Your task to perform on an android device: Empty the shopping cart on amazon.com. Search for "usb-a" on amazon.com, select the first entry, add it to the cart, then select checkout. Image 0: 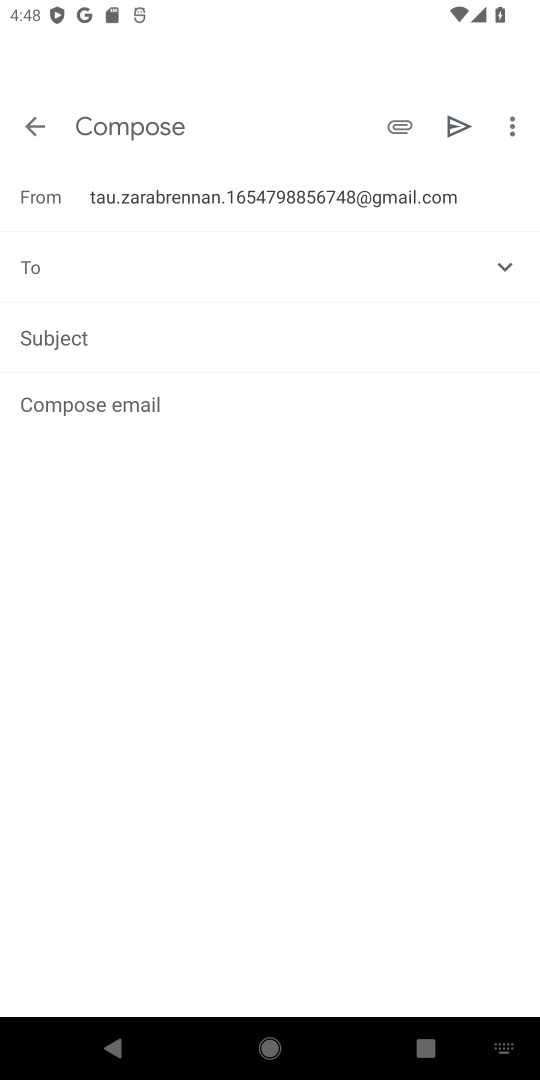
Step 0: press home button
Your task to perform on an android device: Empty the shopping cart on amazon.com. Search for "usb-a" on amazon.com, select the first entry, add it to the cart, then select checkout. Image 1: 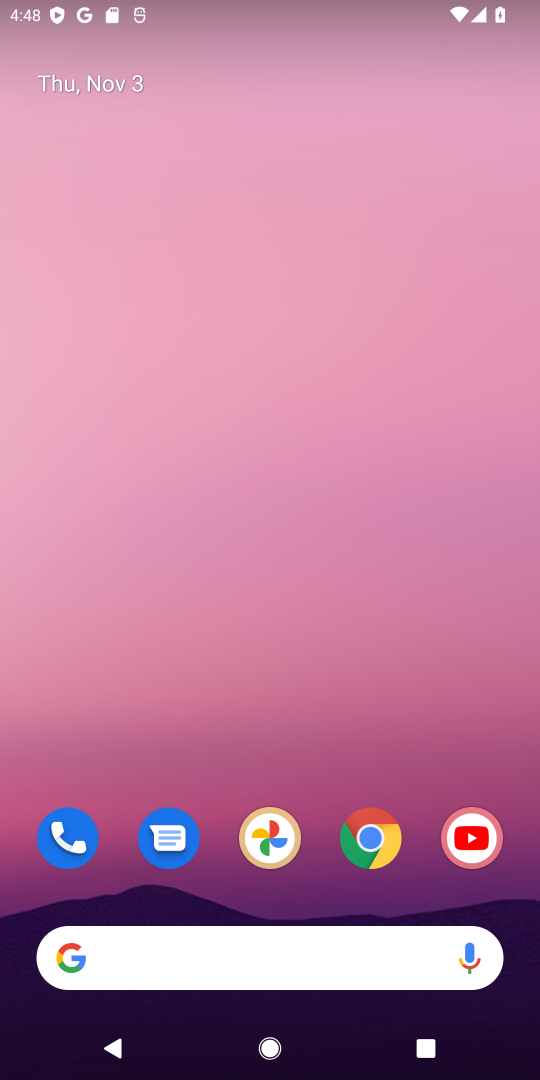
Step 1: click (69, 960)
Your task to perform on an android device: Empty the shopping cart on amazon.com. Search for "usb-a" on amazon.com, select the first entry, add it to the cart, then select checkout. Image 2: 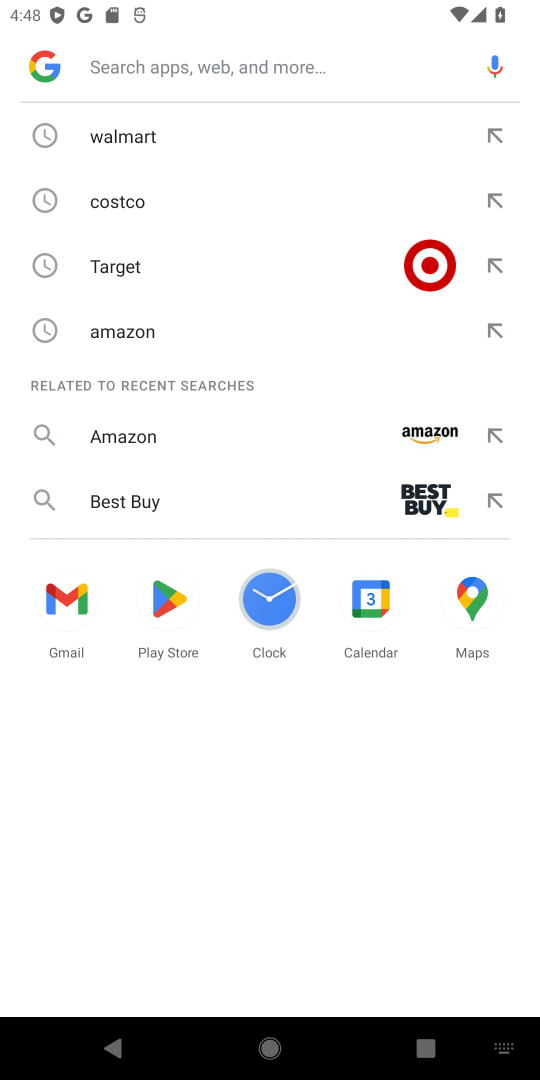
Step 2: click (151, 437)
Your task to perform on an android device: Empty the shopping cart on amazon.com. Search for "usb-a" on amazon.com, select the first entry, add it to the cart, then select checkout. Image 3: 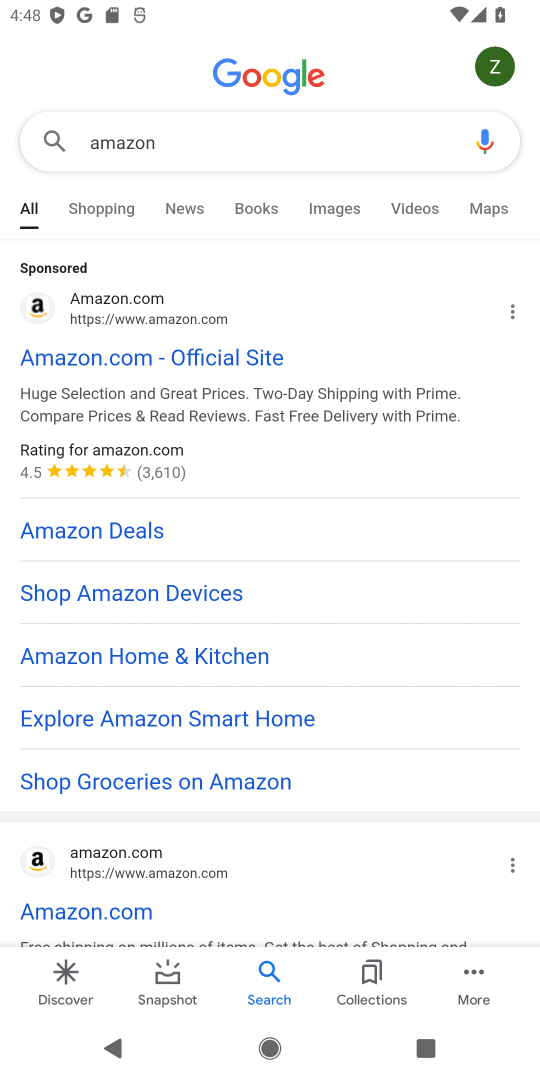
Step 3: click (162, 359)
Your task to perform on an android device: Empty the shopping cart on amazon.com. Search for "usb-a" on amazon.com, select the first entry, add it to the cart, then select checkout. Image 4: 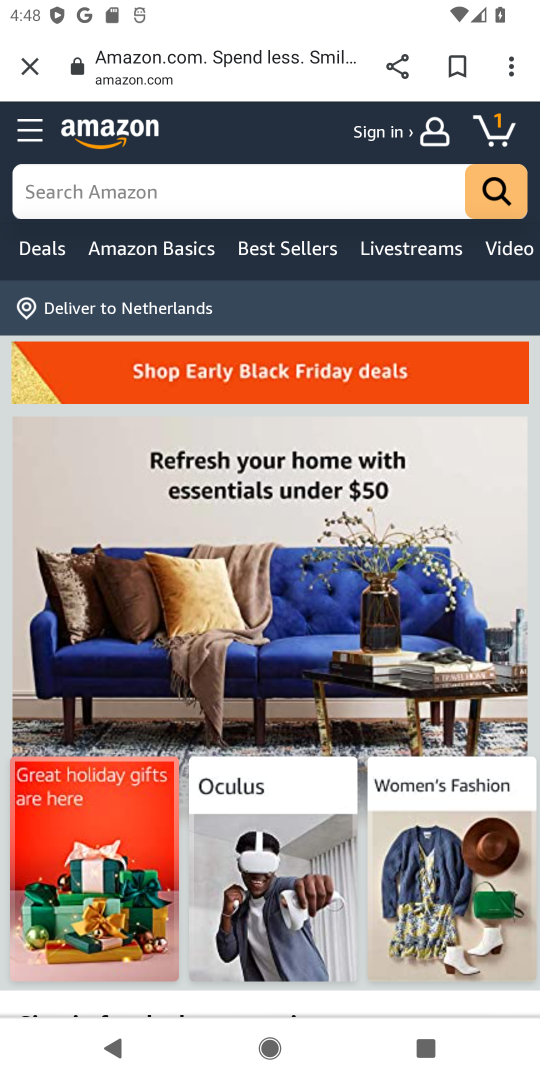
Step 4: click (286, 187)
Your task to perform on an android device: Empty the shopping cart on amazon.com. Search for "usb-a" on amazon.com, select the first entry, add it to the cart, then select checkout. Image 5: 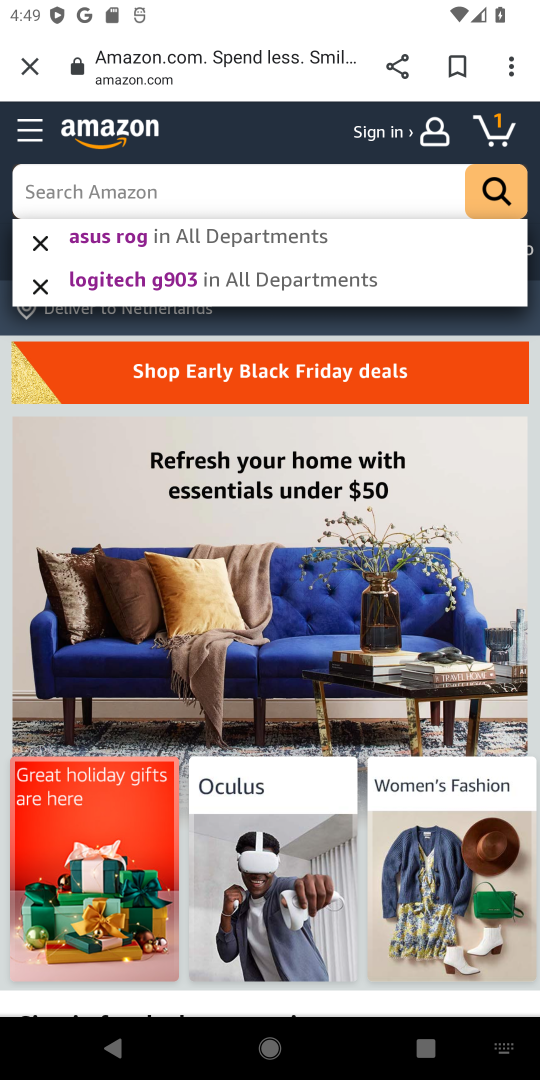
Step 5: type "usb-a"
Your task to perform on an android device: Empty the shopping cart on amazon.com. Search for "usb-a" on amazon.com, select the first entry, add it to the cart, then select checkout. Image 6: 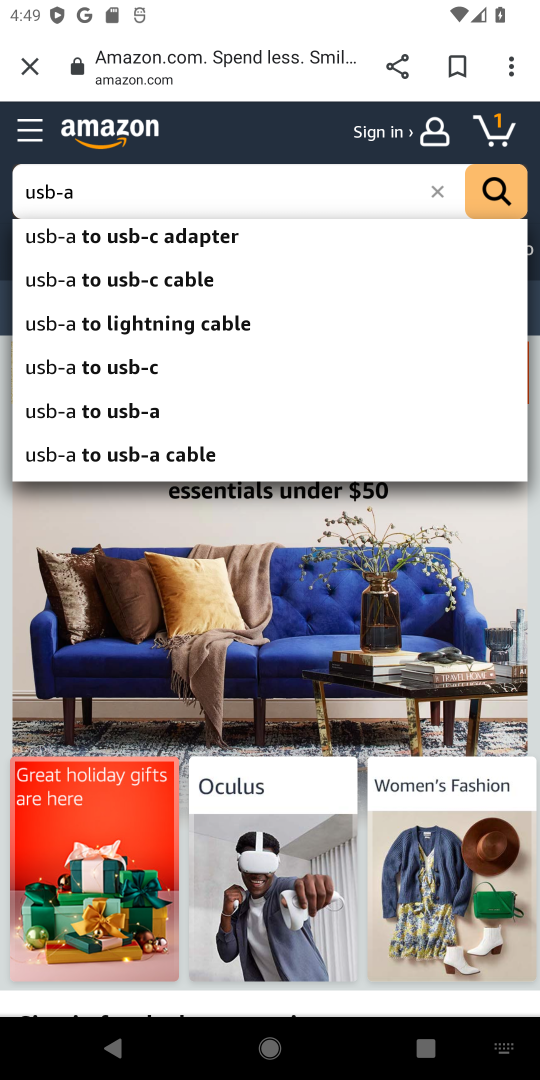
Step 6: click (75, 243)
Your task to perform on an android device: Empty the shopping cart on amazon.com. Search for "usb-a" on amazon.com, select the first entry, add it to the cart, then select checkout. Image 7: 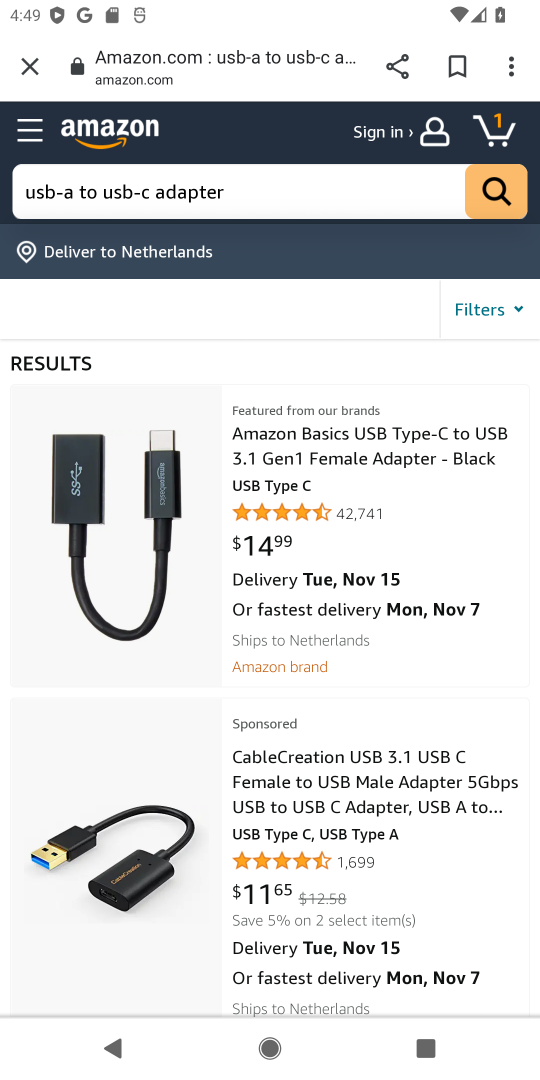
Step 7: click (497, 131)
Your task to perform on an android device: Empty the shopping cart on amazon.com. Search for "usb-a" on amazon.com, select the first entry, add it to the cart, then select checkout. Image 8: 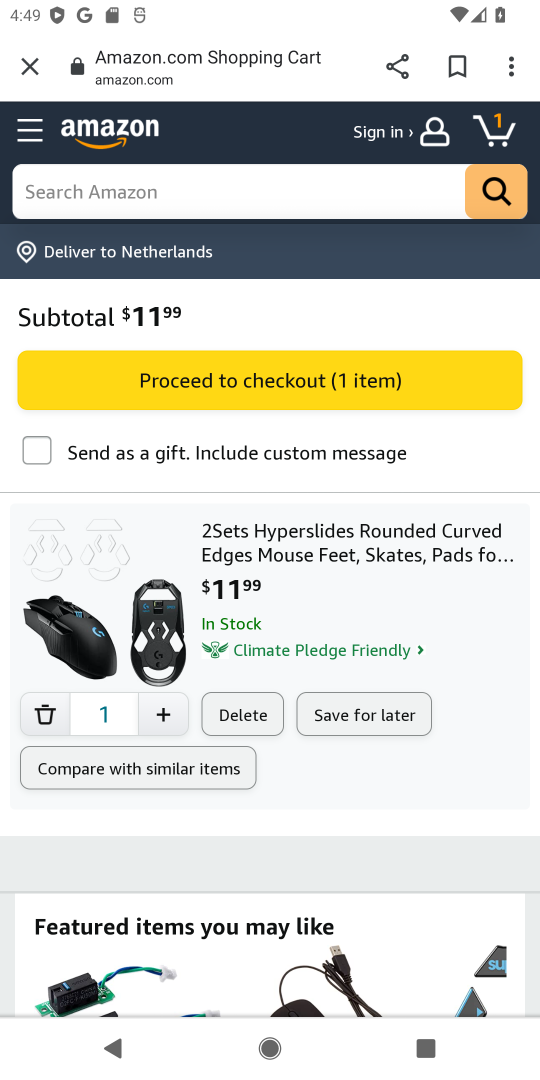
Step 8: click (41, 716)
Your task to perform on an android device: Empty the shopping cart on amazon.com. Search for "usb-a" on amazon.com, select the first entry, add it to the cart, then select checkout. Image 9: 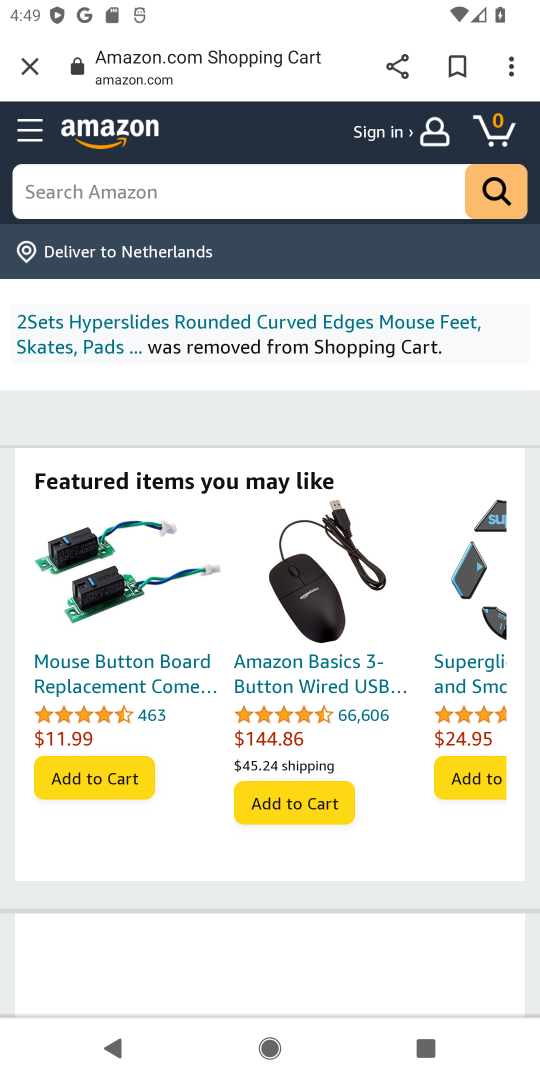
Step 9: click (180, 197)
Your task to perform on an android device: Empty the shopping cart on amazon.com. Search for "usb-a" on amazon.com, select the first entry, add it to the cart, then select checkout. Image 10: 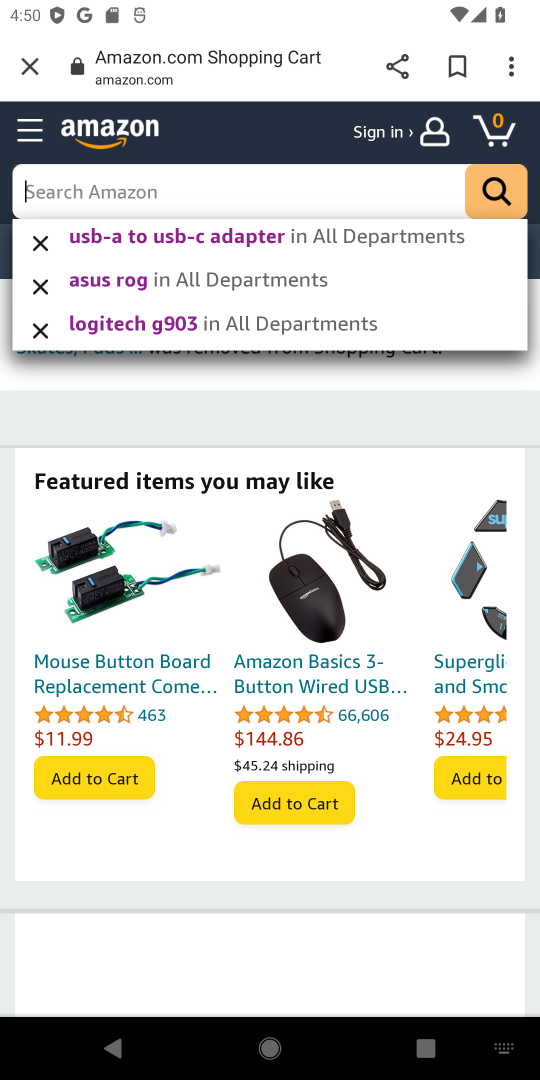
Step 10: click (104, 243)
Your task to perform on an android device: Empty the shopping cart on amazon.com. Search for "usb-a" on amazon.com, select the first entry, add it to the cart, then select checkout. Image 11: 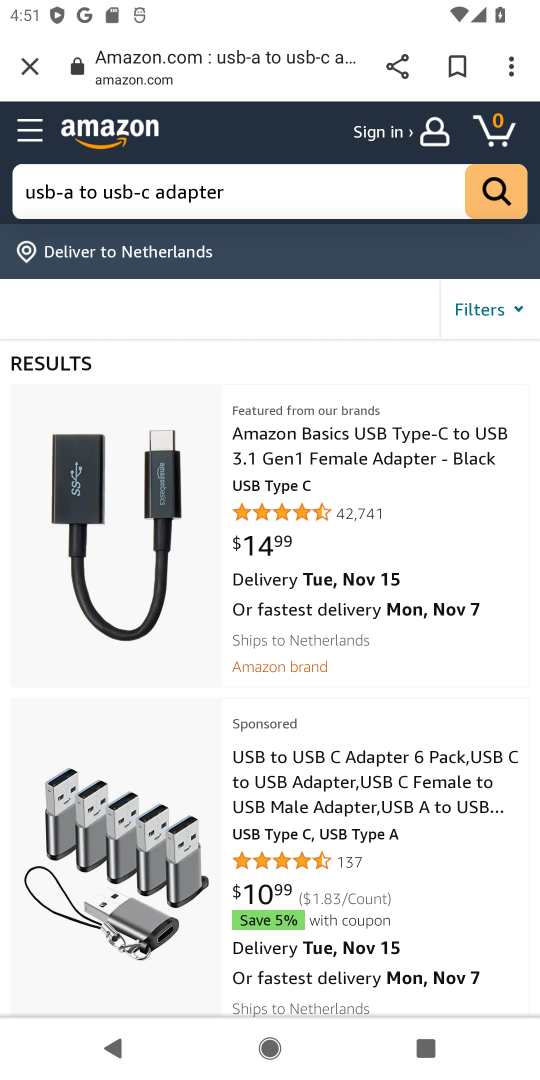
Step 11: click (302, 443)
Your task to perform on an android device: Empty the shopping cart on amazon.com. Search for "usb-a" on amazon.com, select the first entry, add it to the cart, then select checkout. Image 12: 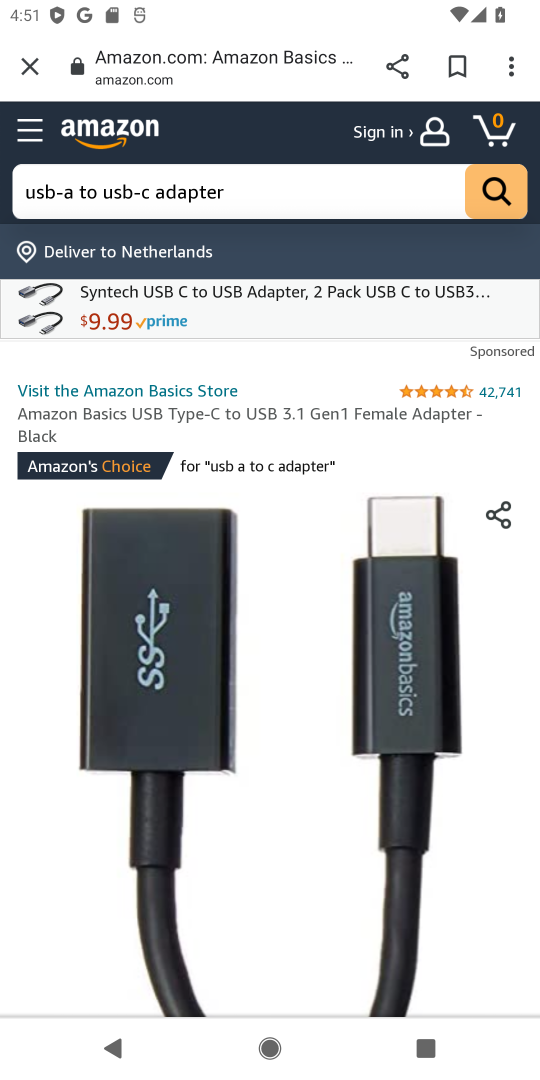
Step 12: drag from (282, 824) to (237, 509)
Your task to perform on an android device: Empty the shopping cart on amazon.com. Search for "usb-a" on amazon.com, select the first entry, add it to the cart, then select checkout. Image 13: 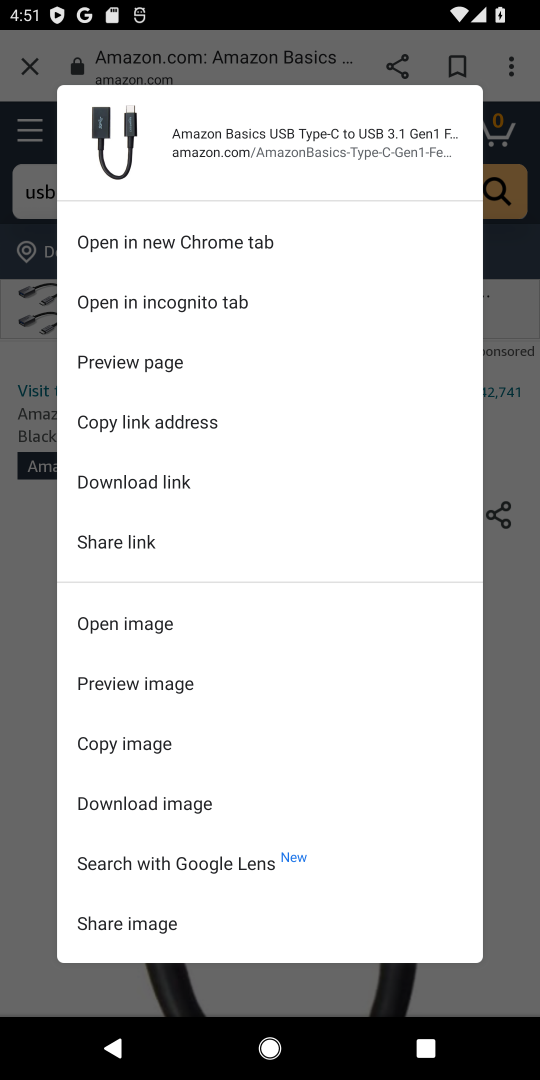
Step 13: click (506, 344)
Your task to perform on an android device: Empty the shopping cart on amazon.com. Search for "usb-a" on amazon.com, select the first entry, add it to the cart, then select checkout. Image 14: 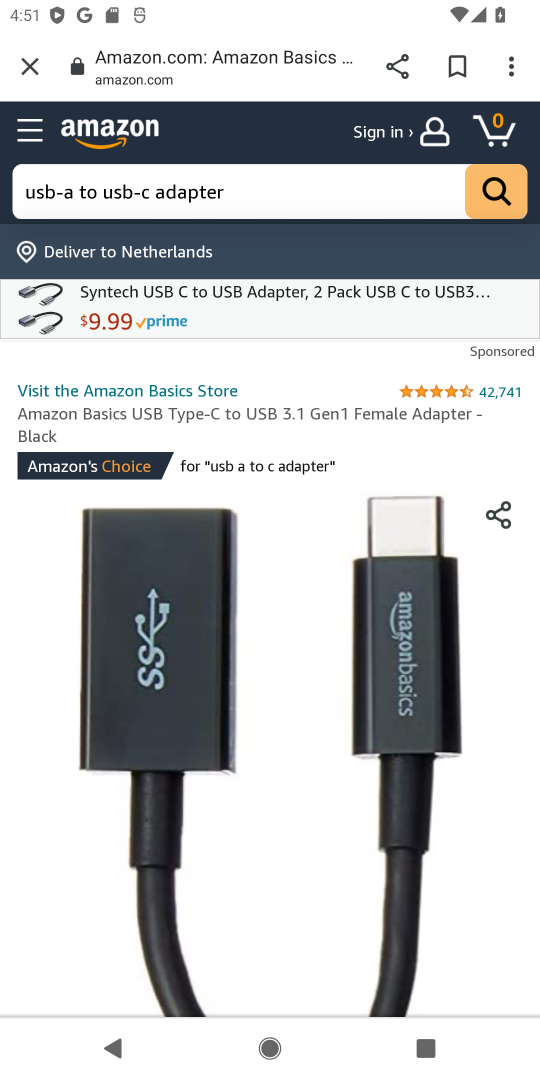
Step 14: drag from (333, 806) to (288, 313)
Your task to perform on an android device: Empty the shopping cart on amazon.com. Search for "usb-a" on amazon.com, select the first entry, add it to the cart, then select checkout. Image 15: 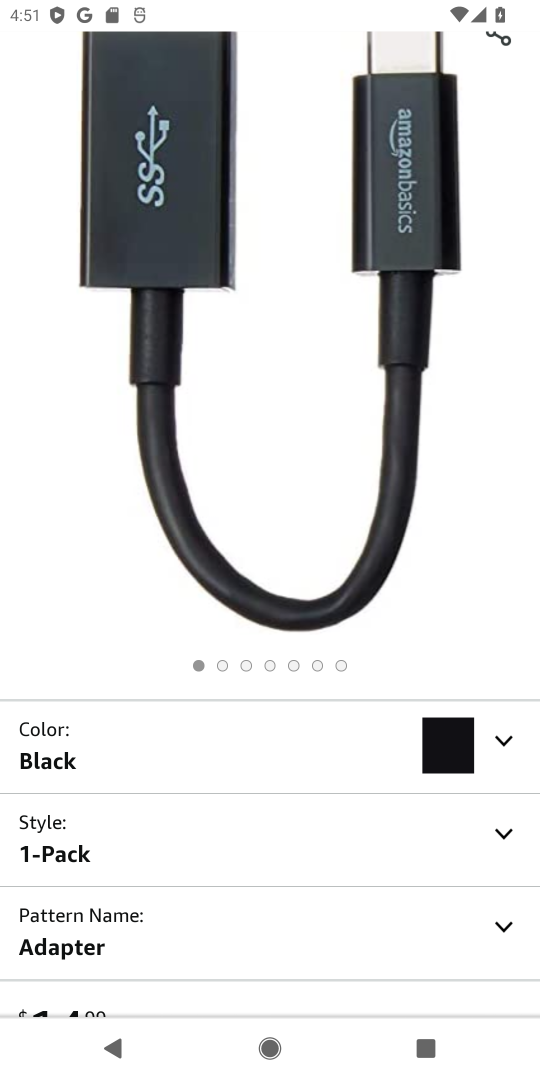
Step 15: drag from (205, 876) to (216, 424)
Your task to perform on an android device: Empty the shopping cart on amazon.com. Search for "usb-a" on amazon.com, select the first entry, add it to the cart, then select checkout. Image 16: 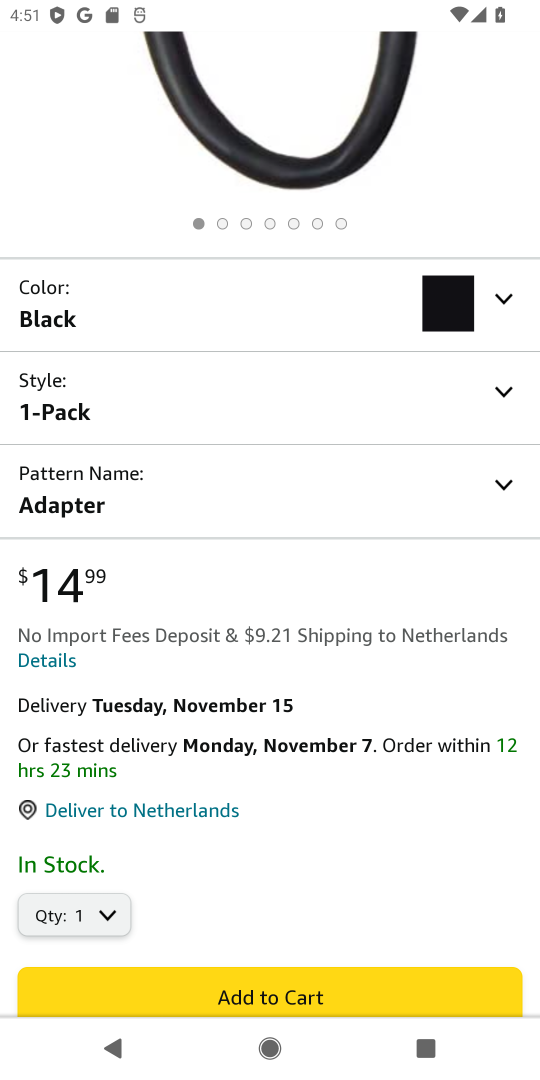
Step 16: click (243, 990)
Your task to perform on an android device: Empty the shopping cart on amazon.com. Search for "usb-a" on amazon.com, select the first entry, add it to the cart, then select checkout. Image 17: 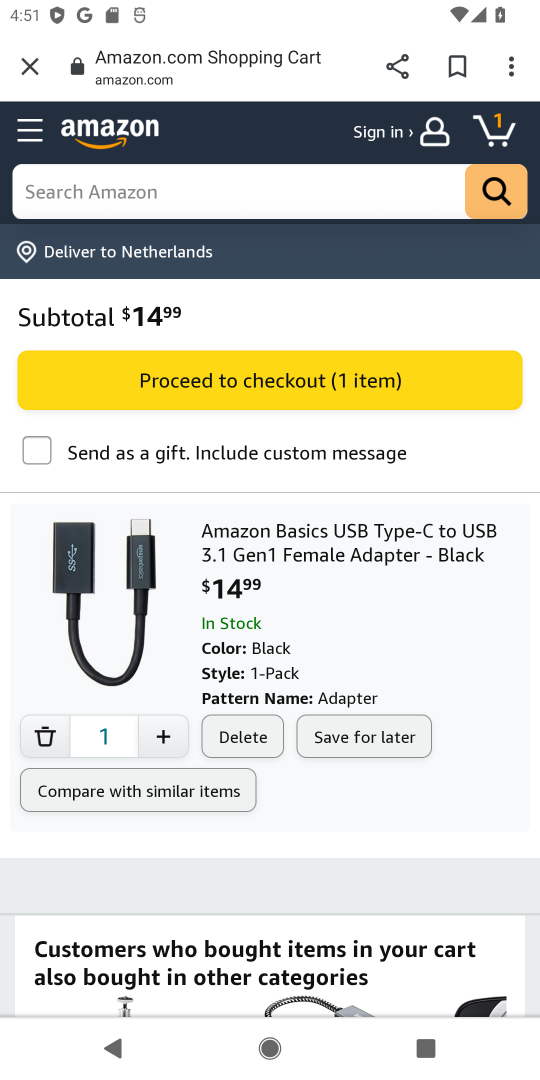
Step 17: click (263, 377)
Your task to perform on an android device: Empty the shopping cart on amazon.com. Search for "usb-a" on amazon.com, select the first entry, add it to the cart, then select checkout. Image 18: 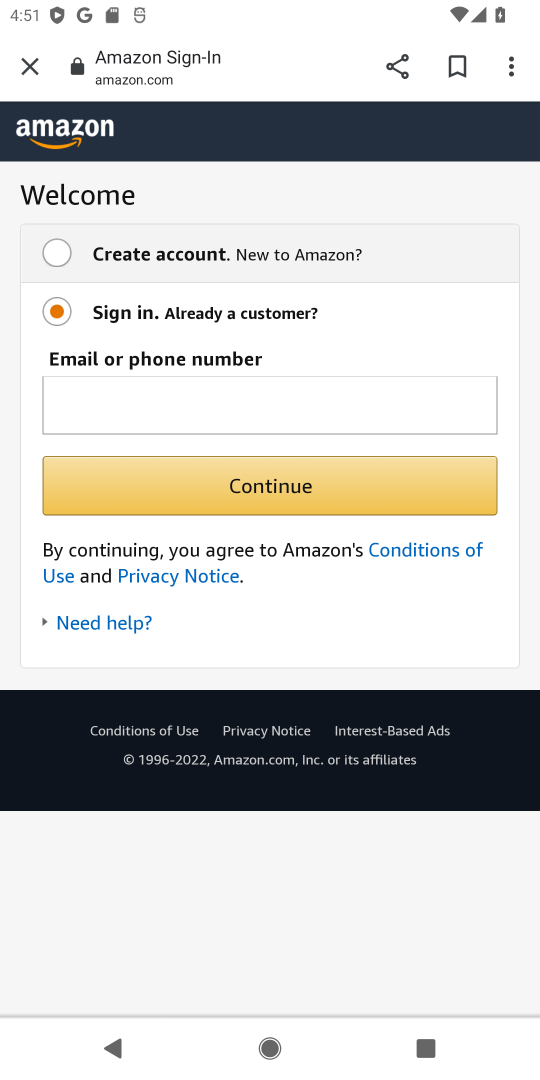
Step 18: task complete